Your task to perform on an android device: change text size in settings app Image 0: 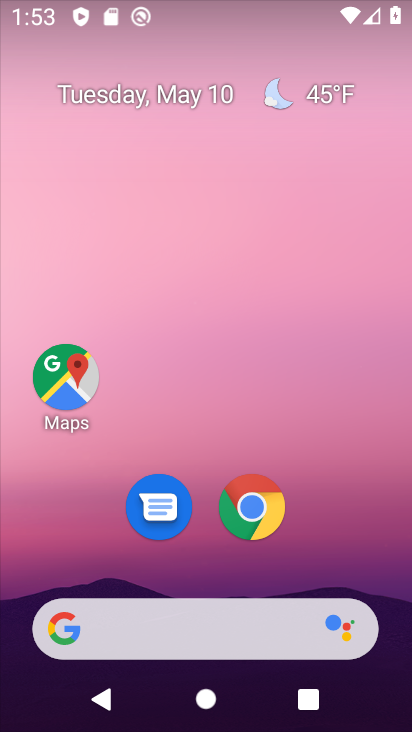
Step 0: drag from (190, 595) to (274, 91)
Your task to perform on an android device: change text size in settings app Image 1: 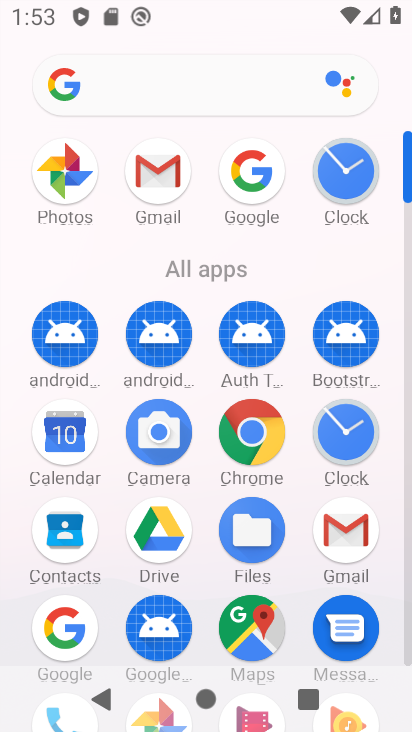
Step 1: drag from (176, 674) to (218, 443)
Your task to perform on an android device: change text size in settings app Image 2: 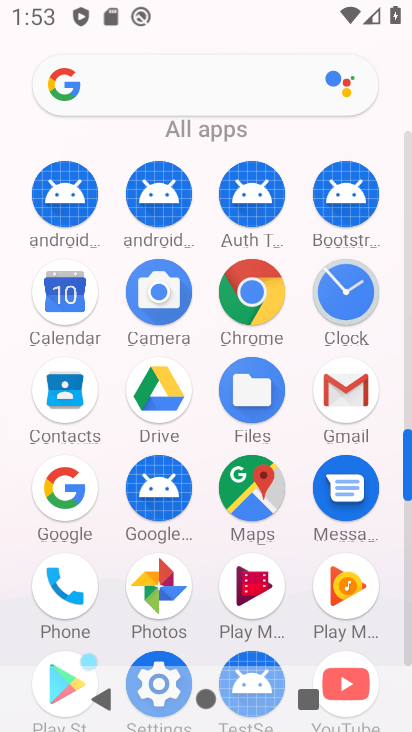
Step 2: click (155, 656)
Your task to perform on an android device: change text size in settings app Image 3: 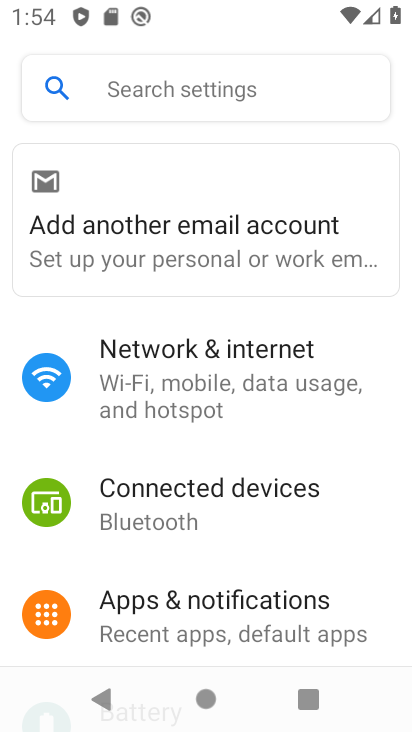
Step 3: drag from (171, 622) to (285, 239)
Your task to perform on an android device: change text size in settings app Image 4: 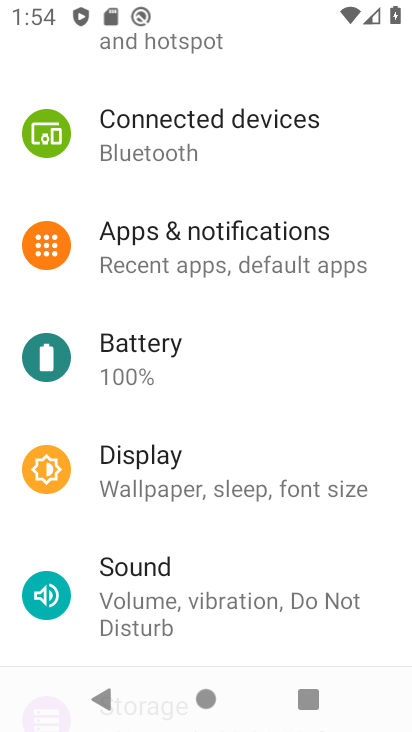
Step 4: click (203, 459)
Your task to perform on an android device: change text size in settings app Image 5: 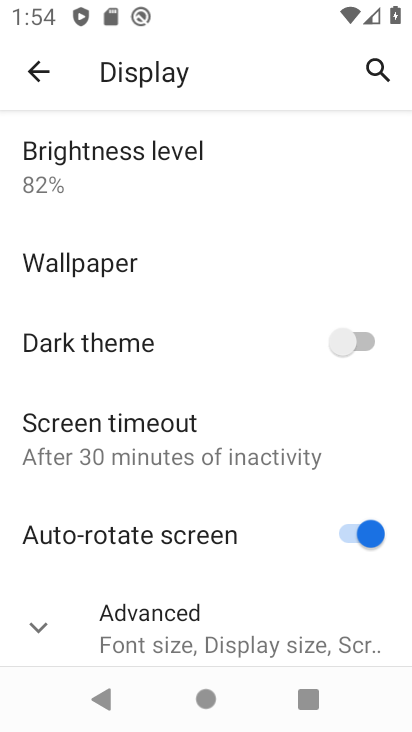
Step 5: drag from (181, 581) to (255, 332)
Your task to perform on an android device: change text size in settings app Image 6: 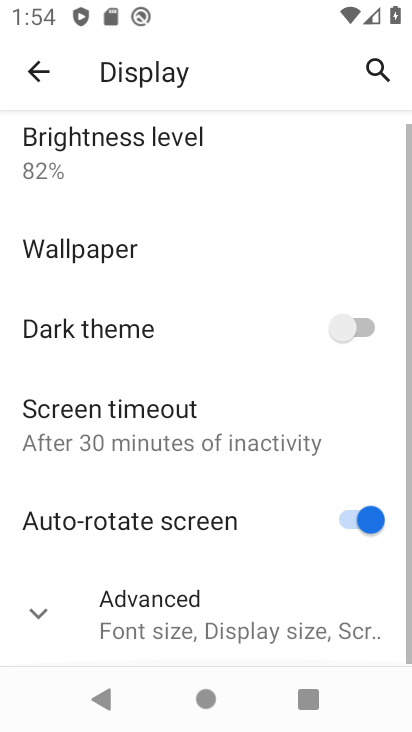
Step 6: click (143, 627)
Your task to perform on an android device: change text size in settings app Image 7: 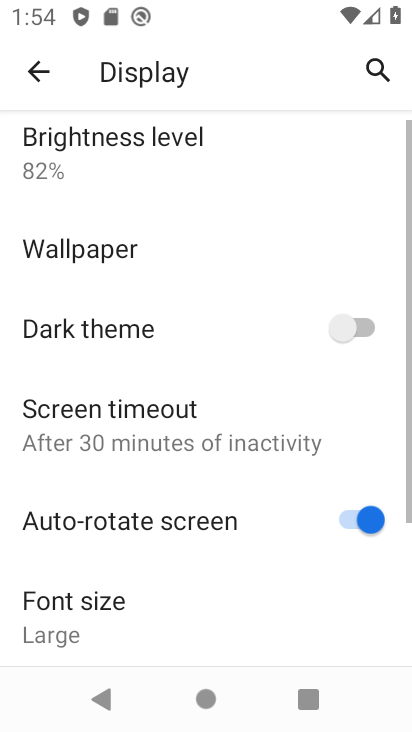
Step 7: drag from (27, 553) to (159, 230)
Your task to perform on an android device: change text size in settings app Image 8: 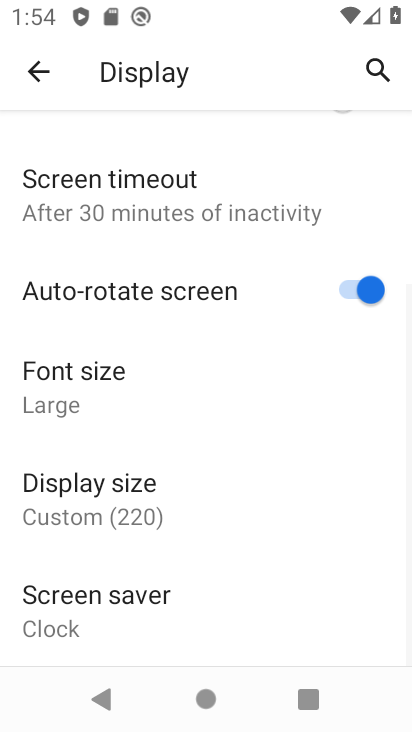
Step 8: click (178, 381)
Your task to perform on an android device: change text size in settings app Image 9: 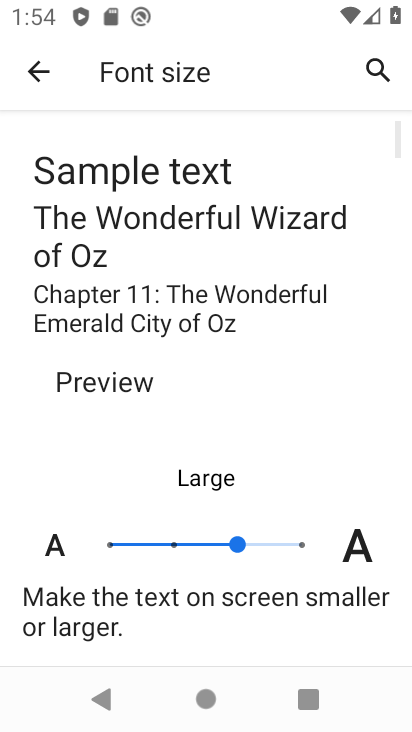
Step 9: click (163, 536)
Your task to perform on an android device: change text size in settings app Image 10: 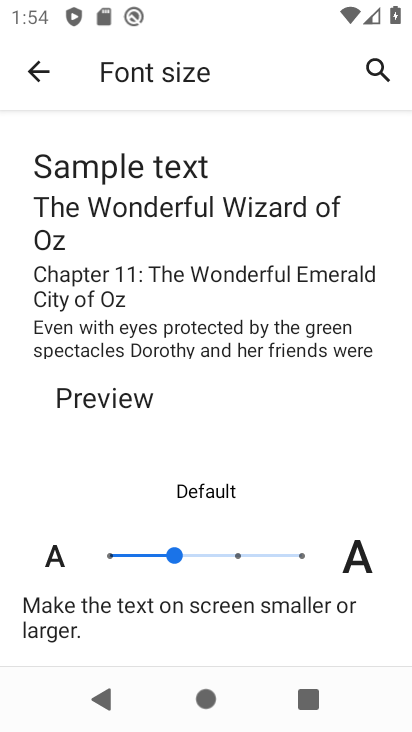
Step 10: task complete